Your task to perform on an android device: Open CNN.com Image 0: 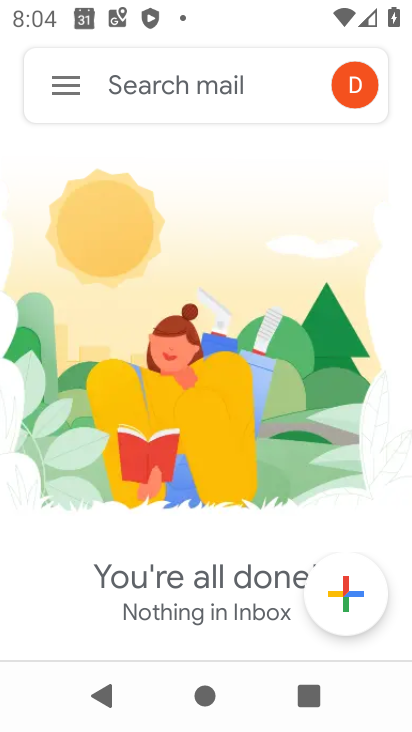
Step 0: press home button
Your task to perform on an android device: Open CNN.com Image 1: 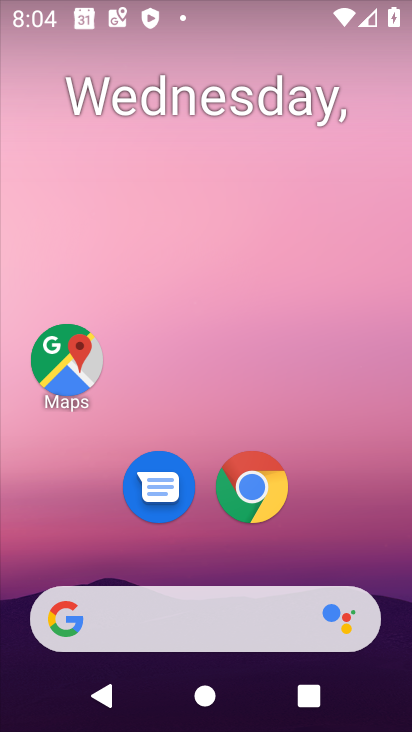
Step 1: drag from (381, 557) to (366, 196)
Your task to perform on an android device: Open CNN.com Image 2: 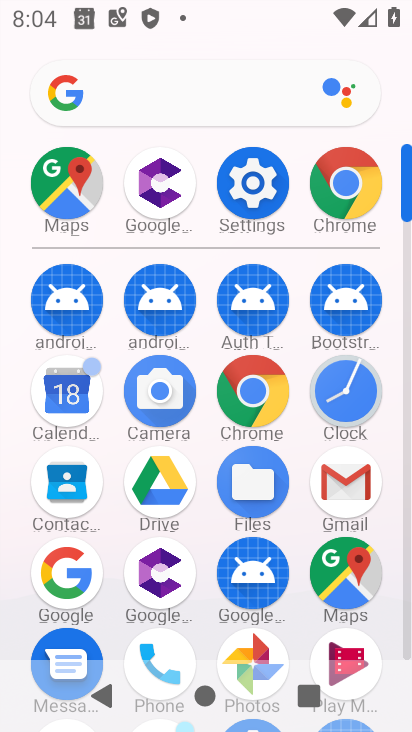
Step 2: click (366, 196)
Your task to perform on an android device: Open CNN.com Image 3: 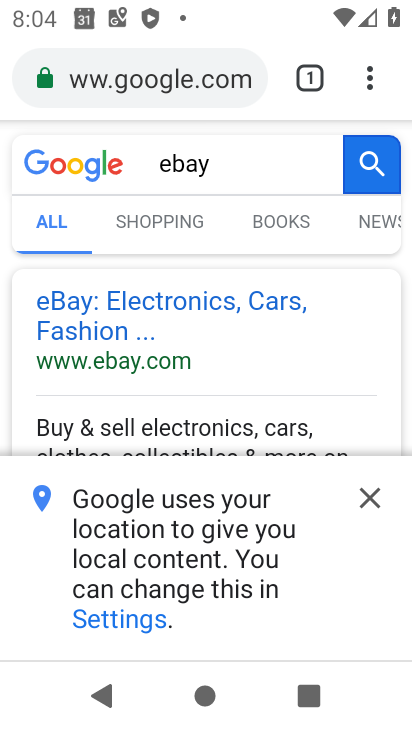
Step 3: click (198, 83)
Your task to perform on an android device: Open CNN.com Image 4: 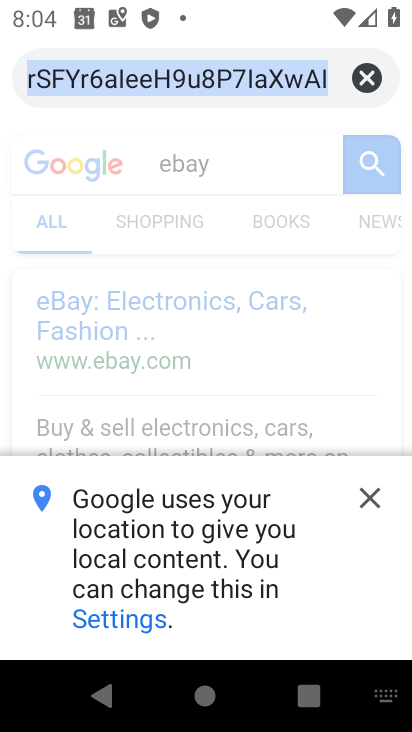
Step 4: click (356, 78)
Your task to perform on an android device: Open CNN.com Image 5: 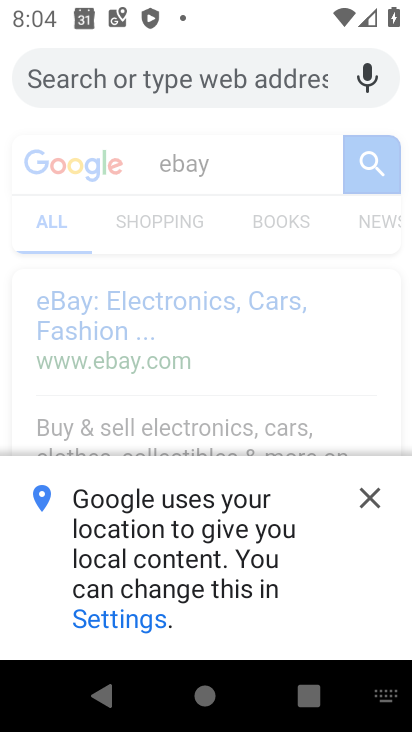
Step 5: type "cnn.com"
Your task to perform on an android device: Open CNN.com Image 6: 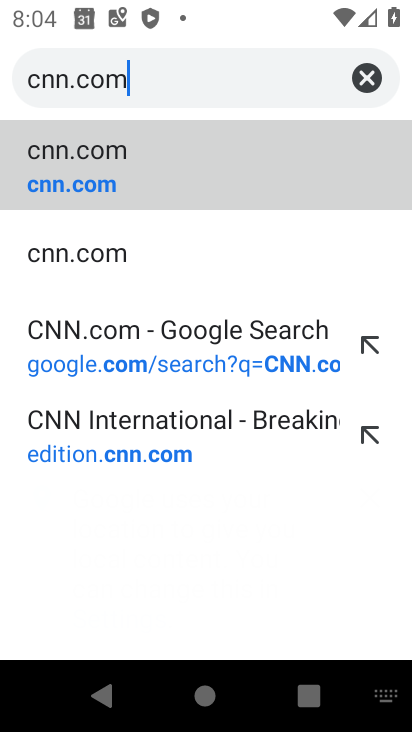
Step 6: click (170, 169)
Your task to perform on an android device: Open CNN.com Image 7: 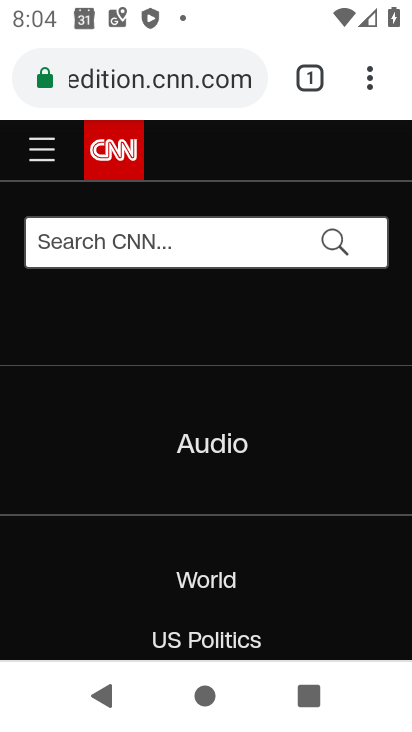
Step 7: task complete